Your task to perform on an android device: Open CNN.com Image 0: 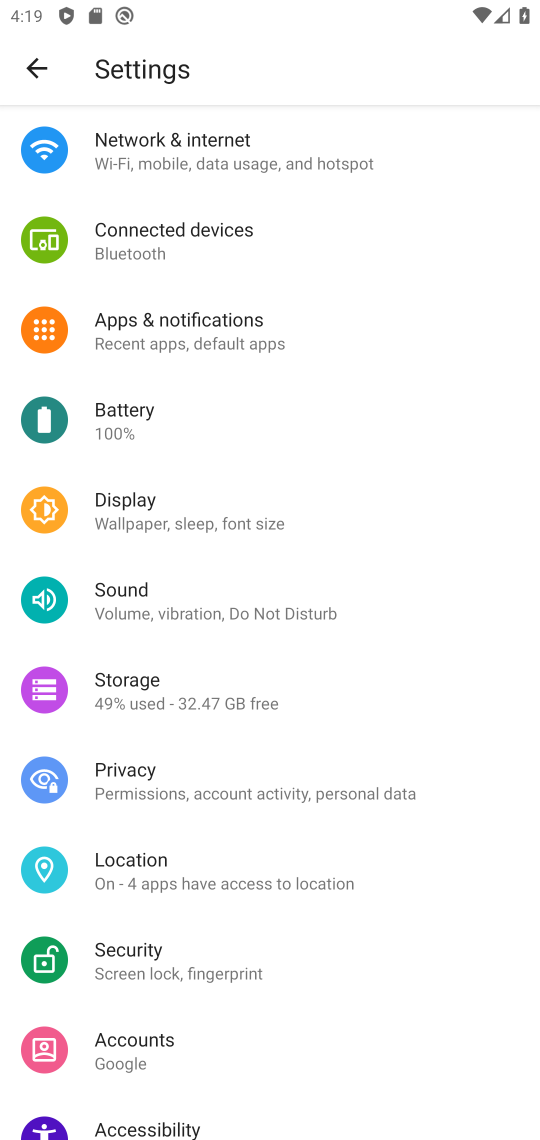
Step 0: press home button
Your task to perform on an android device: Open CNN.com Image 1: 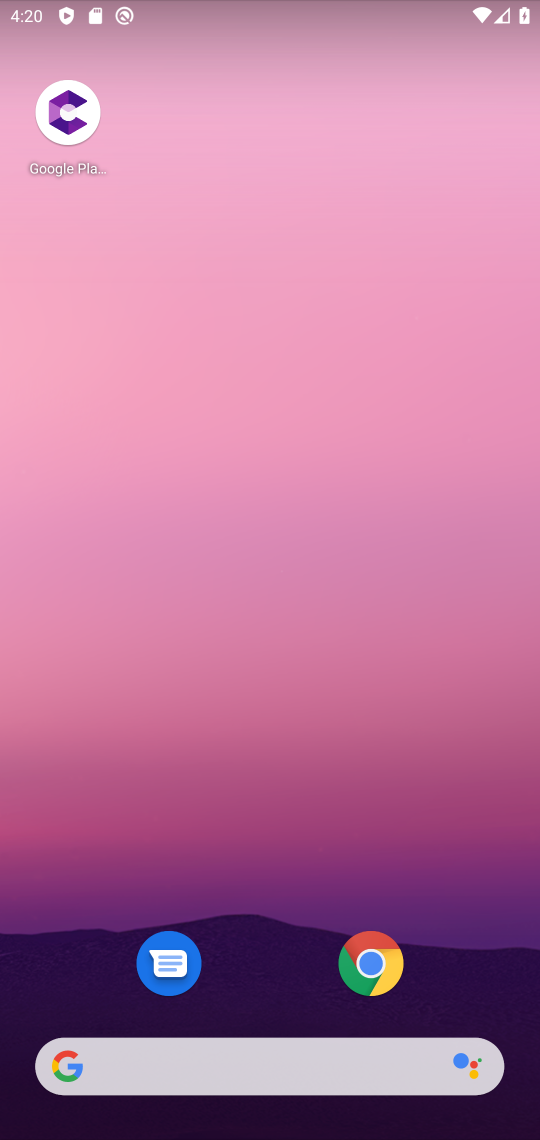
Step 1: click (65, 1060)
Your task to perform on an android device: Open CNN.com Image 2: 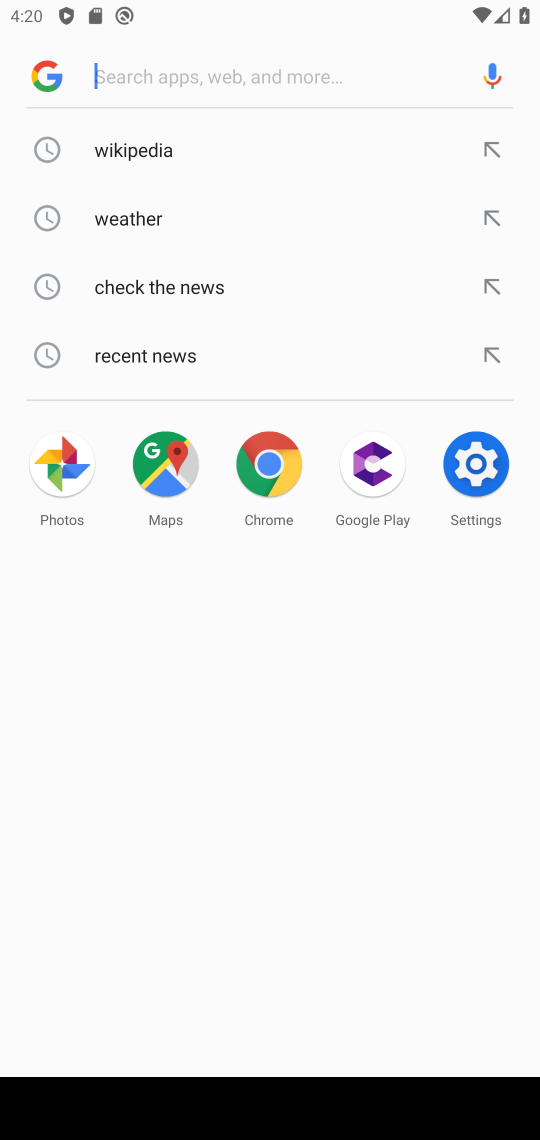
Step 2: type " CNN.com"
Your task to perform on an android device: Open CNN.com Image 3: 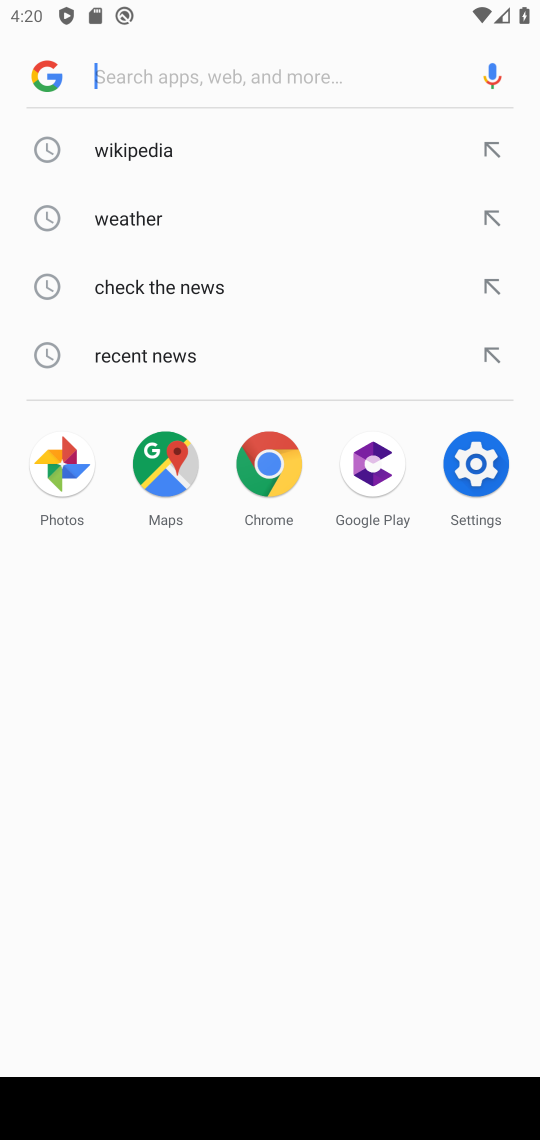
Step 3: click (121, 73)
Your task to perform on an android device: Open CNN.com Image 4: 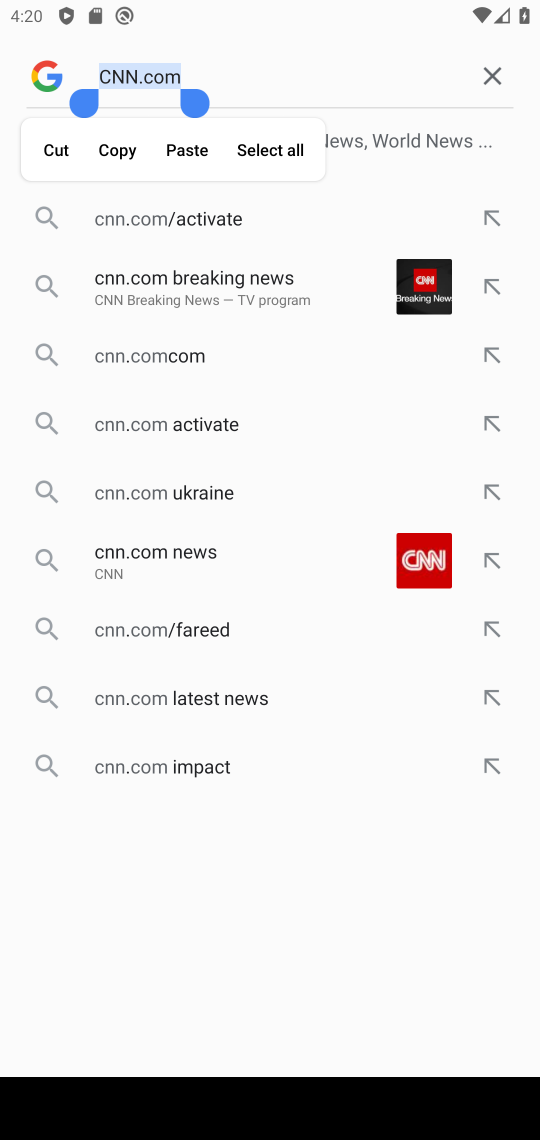
Step 4: click (349, 91)
Your task to perform on an android device: Open CNN.com Image 5: 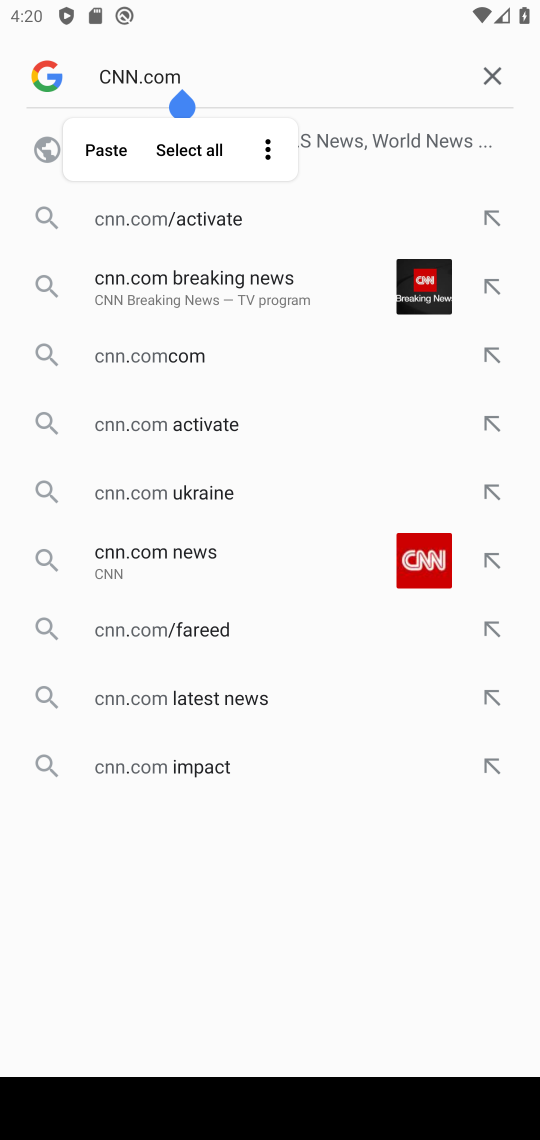
Step 5: press enter
Your task to perform on an android device: Open CNN.com Image 6: 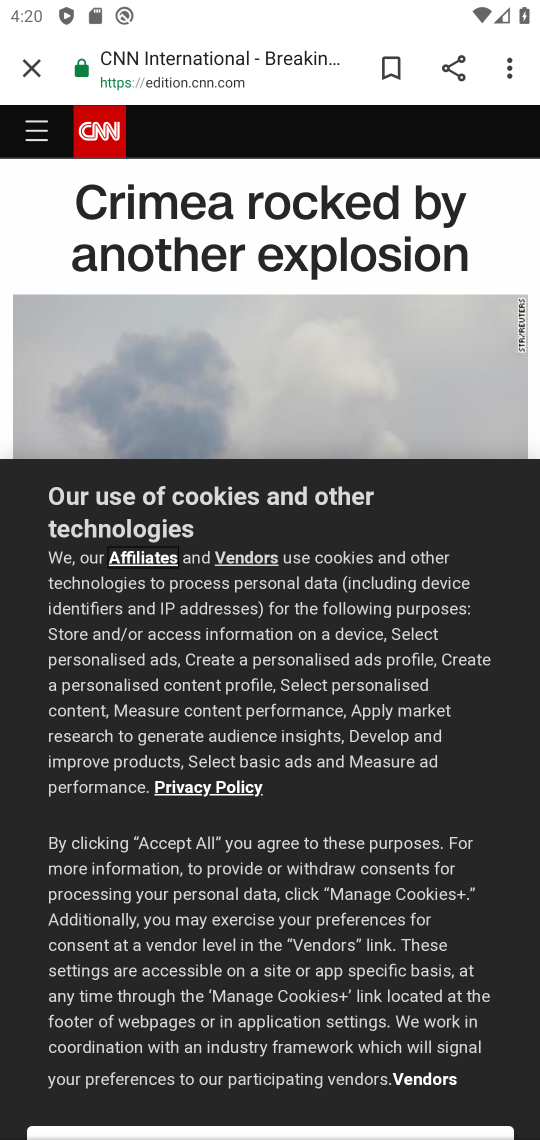
Step 6: task complete